Your task to perform on an android device: Show me the alarms in the clock app Image 0: 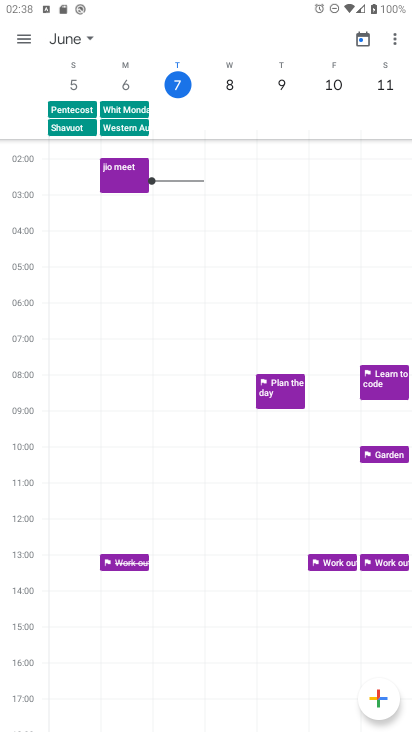
Step 0: press home button
Your task to perform on an android device: Show me the alarms in the clock app Image 1: 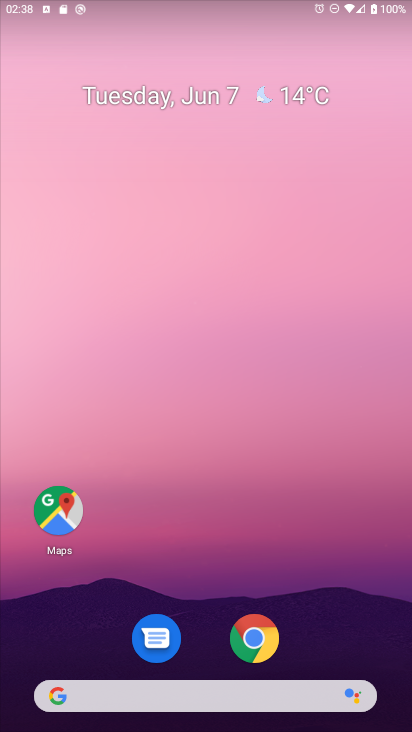
Step 1: drag from (286, 714) to (267, 172)
Your task to perform on an android device: Show me the alarms in the clock app Image 2: 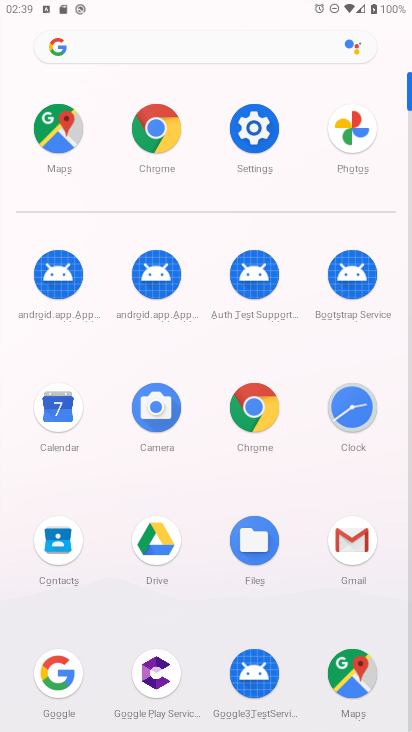
Step 2: click (332, 414)
Your task to perform on an android device: Show me the alarms in the clock app Image 3: 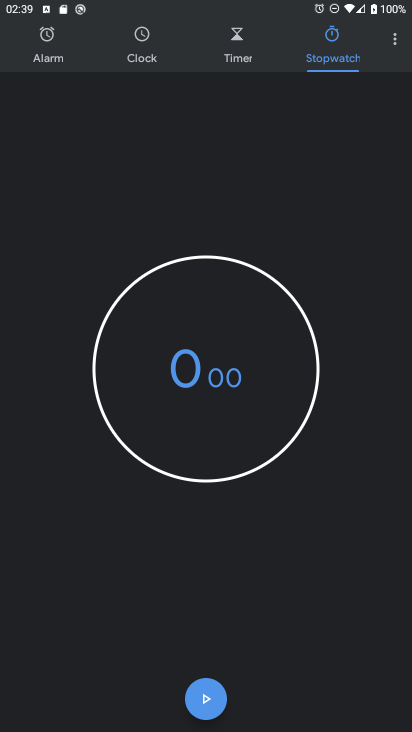
Step 3: click (68, 54)
Your task to perform on an android device: Show me the alarms in the clock app Image 4: 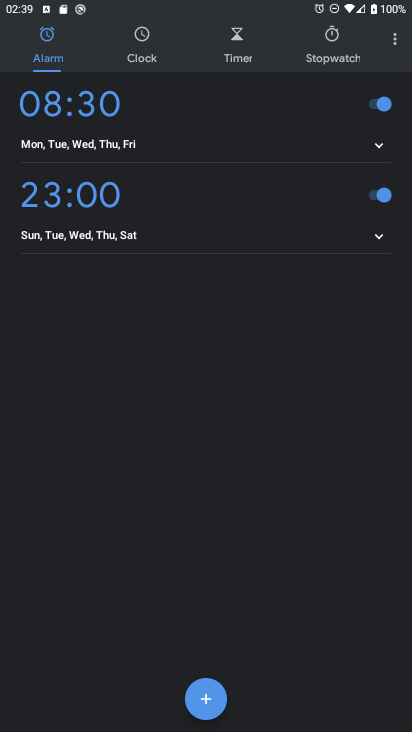
Step 4: task complete